Your task to perform on an android device: Search for pizza restaurants on Maps Image 0: 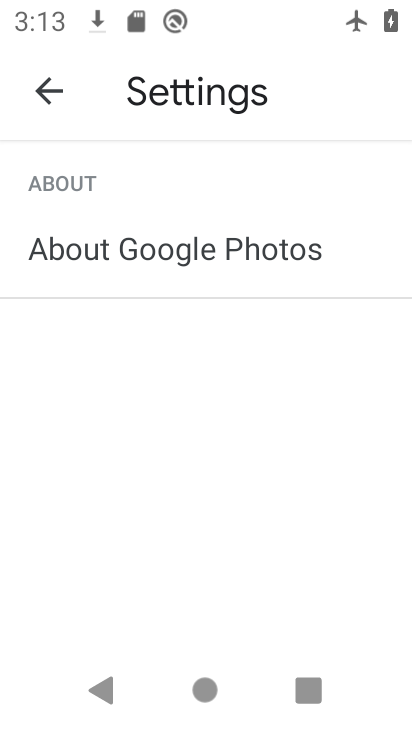
Step 0: press home button
Your task to perform on an android device: Search for pizza restaurants on Maps Image 1: 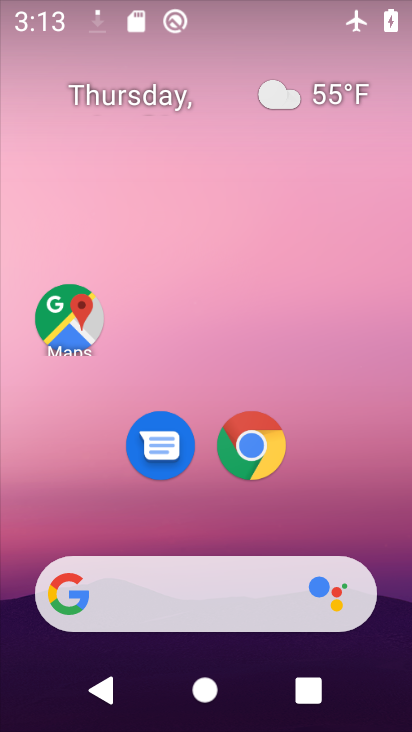
Step 1: click (82, 327)
Your task to perform on an android device: Search for pizza restaurants on Maps Image 2: 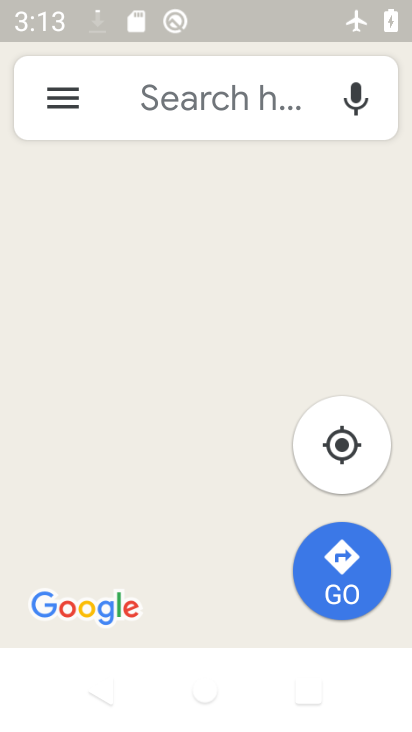
Step 2: click (203, 98)
Your task to perform on an android device: Search for pizza restaurants on Maps Image 3: 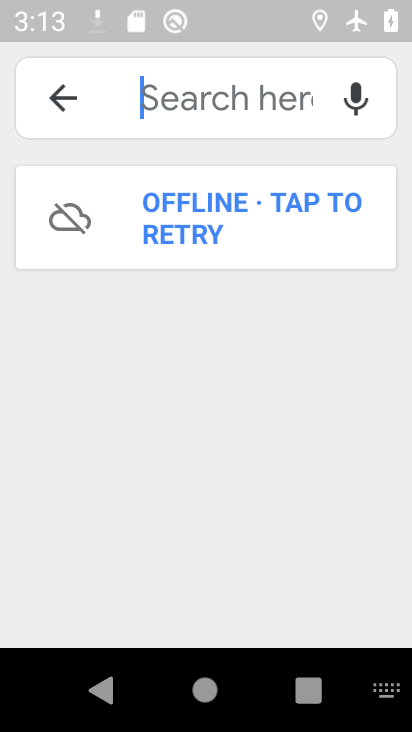
Step 3: type "pizza restaurants"
Your task to perform on an android device: Search for pizza restaurants on Maps Image 4: 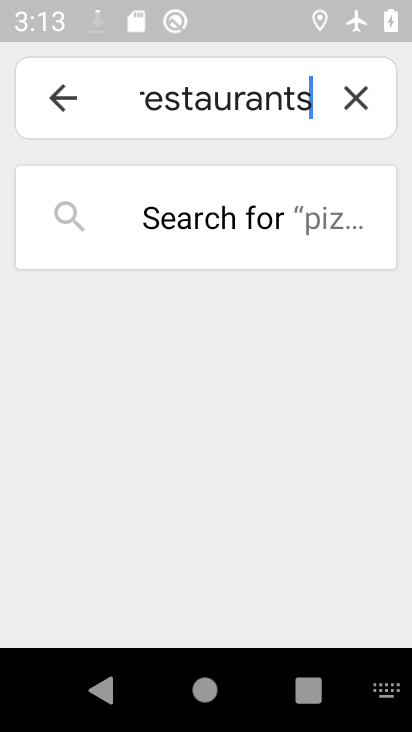
Step 4: click (307, 220)
Your task to perform on an android device: Search for pizza restaurants on Maps Image 5: 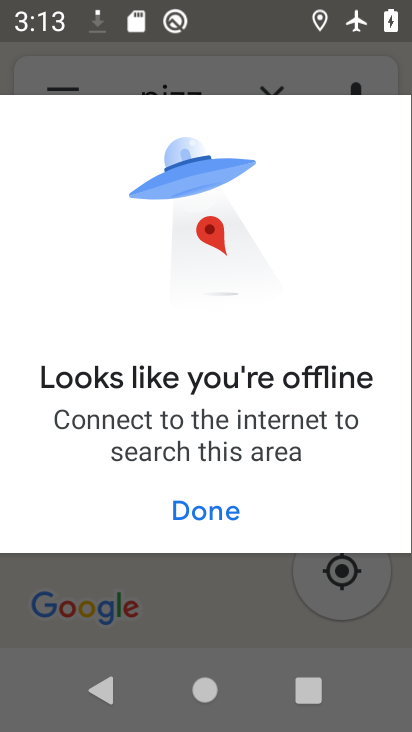
Step 5: task complete